Your task to perform on an android device: What is the recent news? Image 0: 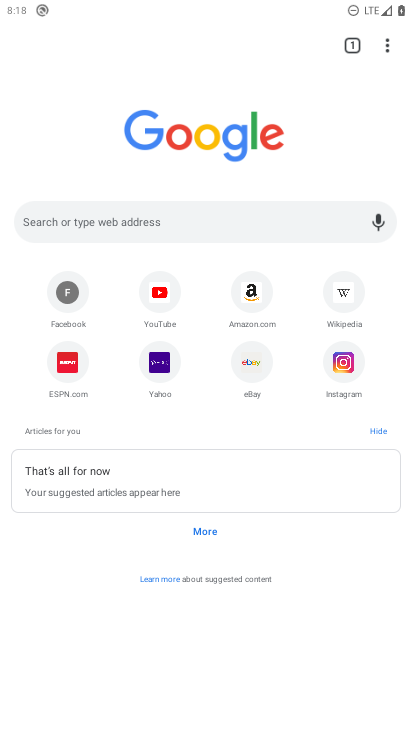
Step 0: press home button
Your task to perform on an android device: What is the recent news? Image 1: 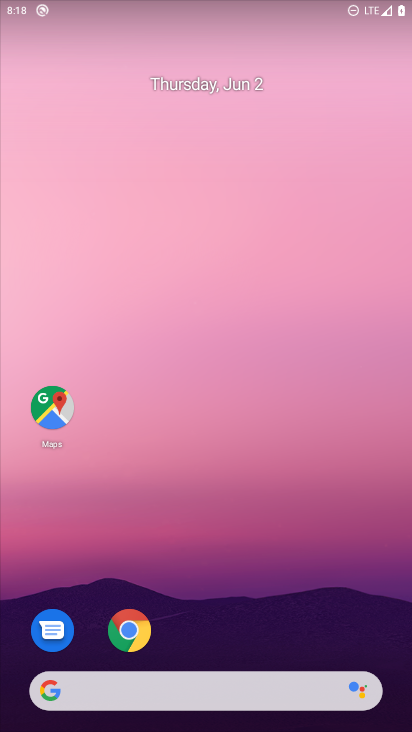
Step 1: click (151, 700)
Your task to perform on an android device: What is the recent news? Image 2: 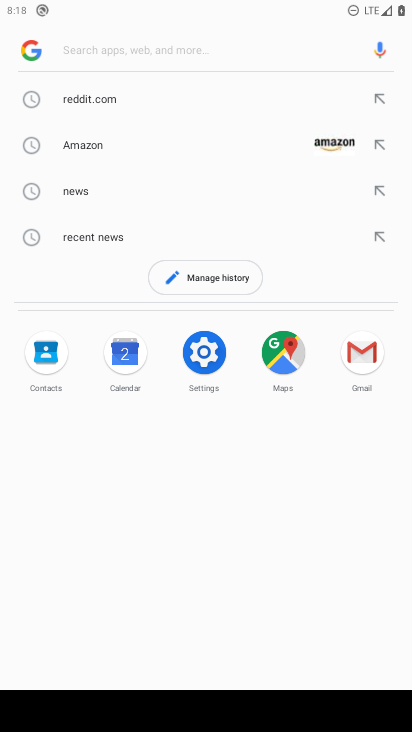
Step 2: type "recent news"
Your task to perform on an android device: What is the recent news? Image 3: 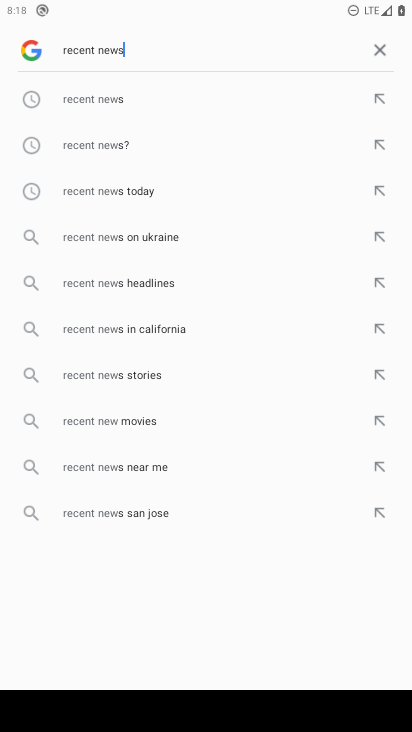
Step 3: click (205, 96)
Your task to perform on an android device: What is the recent news? Image 4: 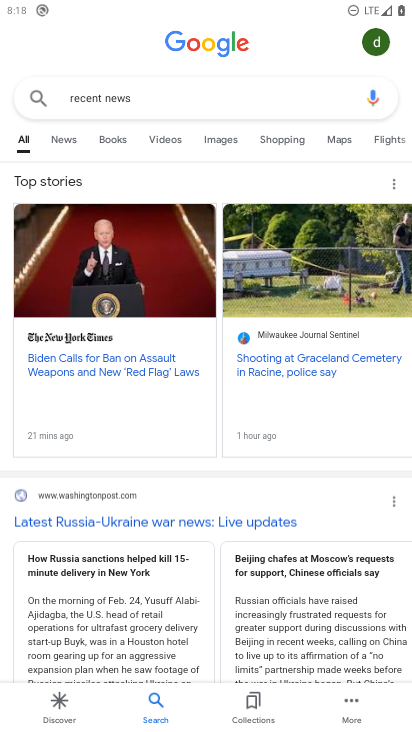
Step 4: task complete